Your task to perform on an android device: toggle translation in the chrome app Image 0: 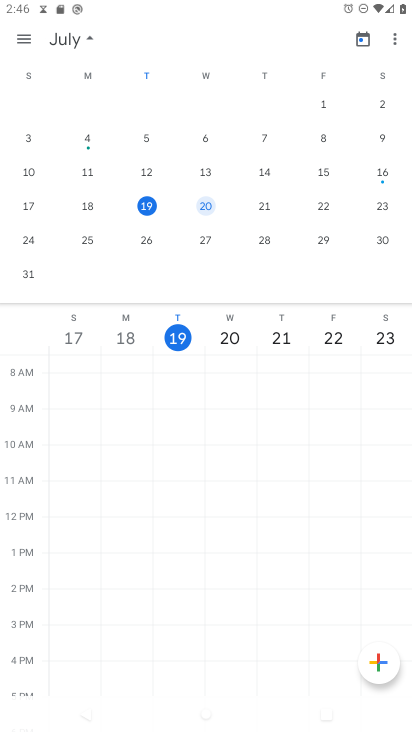
Step 0: press home button
Your task to perform on an android device: toggle translation in the chrome app Image 1: 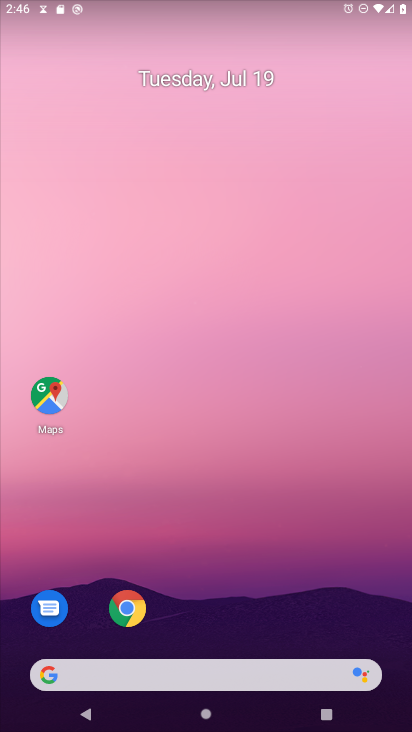
Step 1: drag from (278, 653) to (273, 47)
Your task to perform on an android device: toggle translation in the chrome app Image 2: 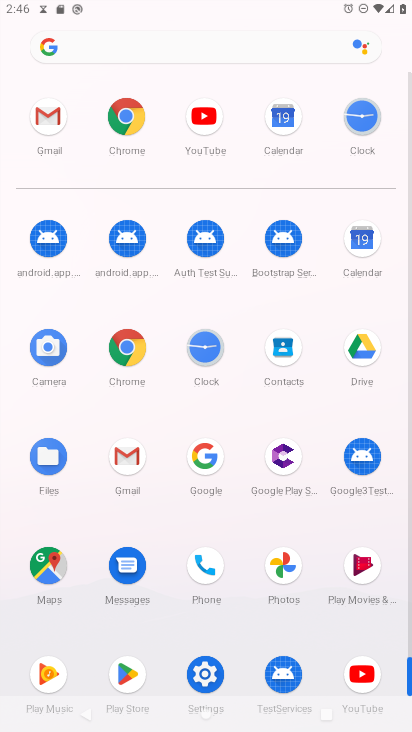
Step 2: click (134, 348)
Your task to perform on an android device: toggle translation in the chrome app Image 3: 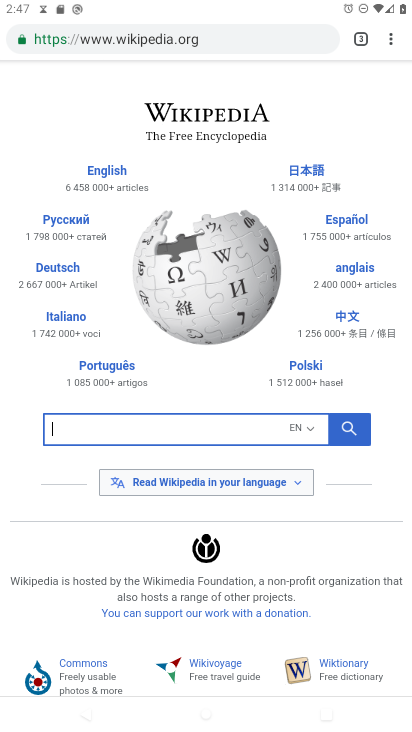
Step 3: drag from (396, 40) to (278, 439)
Your task to perform on an android device: toggle translation in the chrome app Image 4: 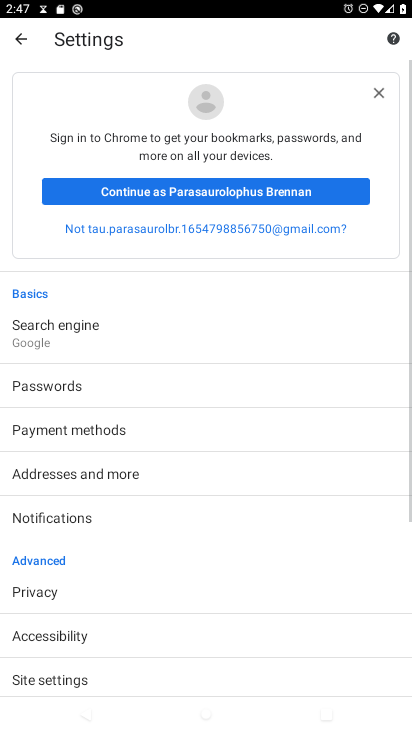
Step 4: drag from (109, 678) to (147, 415)
Your task to perform on an android device: toggle translation in the chrome app Image 5: 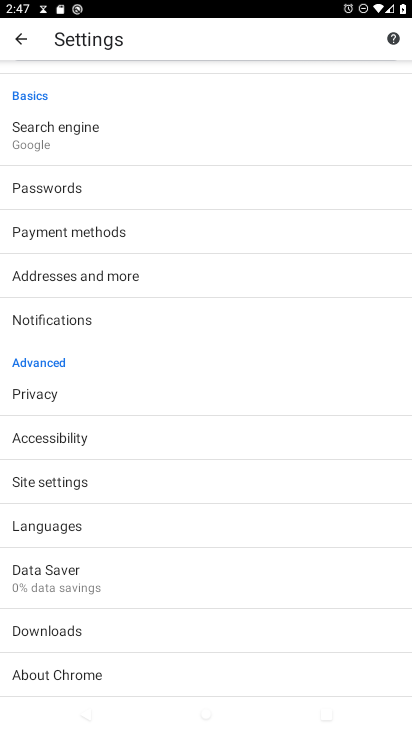
Step 5: click (97, 541)
Your task to perform on an android device: toggle translation in the chrome app Image 6: 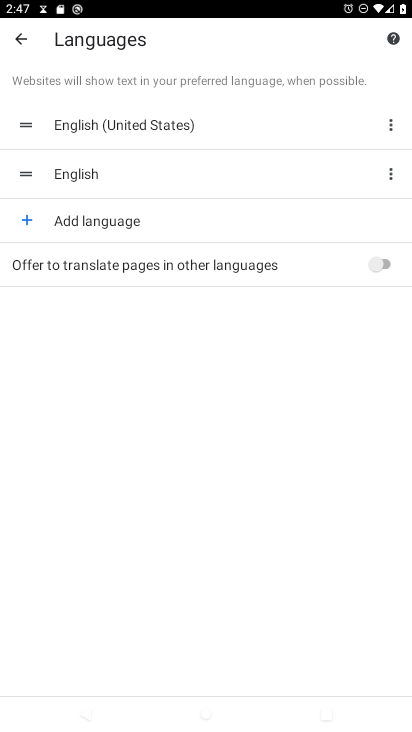
Step 6: click (385, 263)
Your task to perform on an android device: toggle translation in the chrome app Image 7: 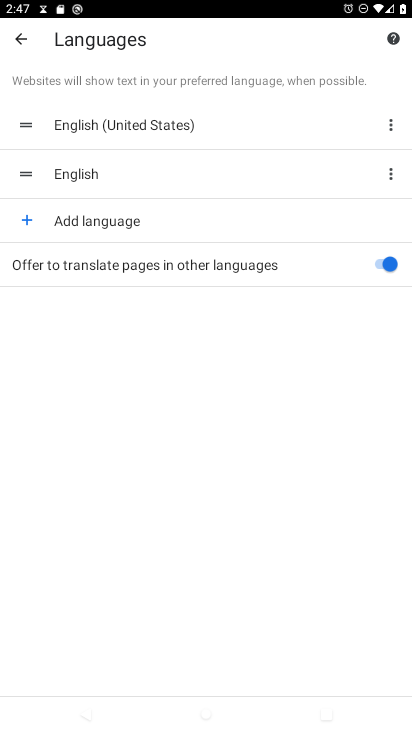
Step 7: task complete